Your task to perform on an android device: What's the weather going to be this weekend? Image 0: 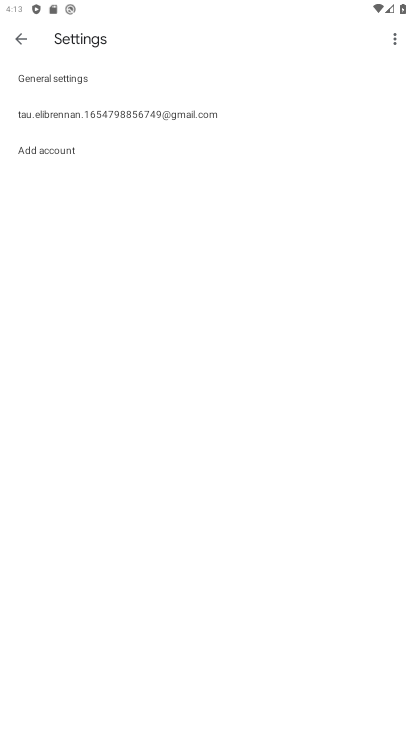
Step 0: press home button
Your task to perform on an android device: What's the weather going to be this weekend? Image 1: 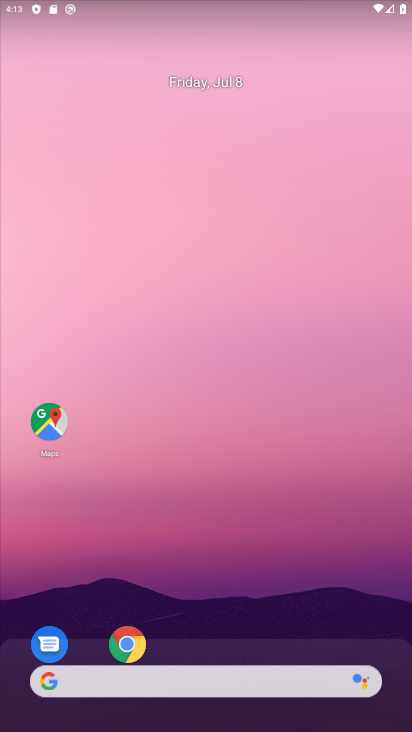
Step 1: click (187, 695)
Your task to perform on an android device: What's the weather going to be this weekend? Image 2: 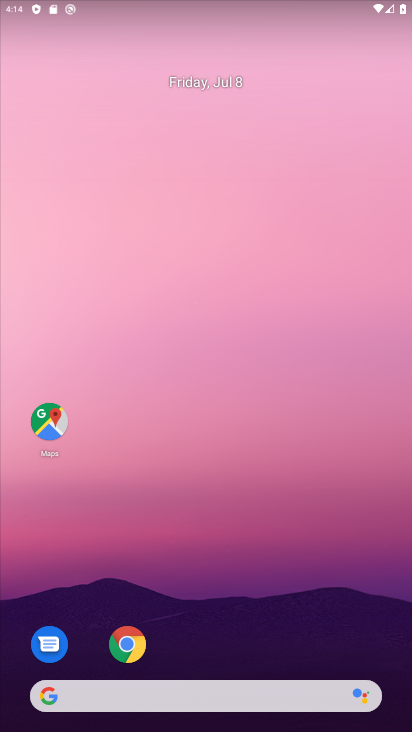
Step 2: type "What's the weather going to be this weekend?"
Your task to perform on an android device: What's the weather going to be this weekend? Image 3: 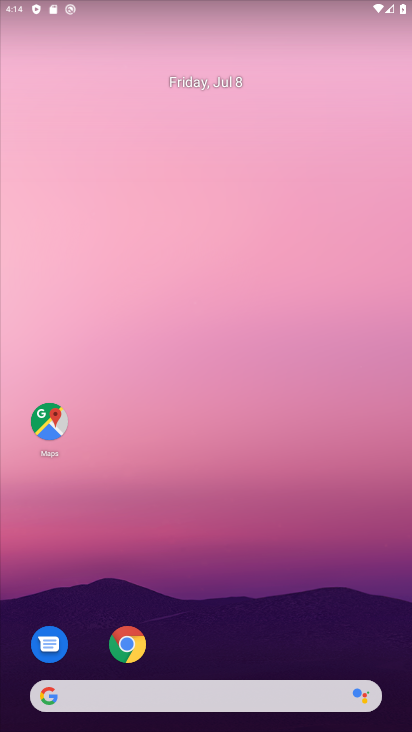
Step 3: click (163, 691)
Your task to perform on an android device: What's the weather going to be this weekend? Image 4: 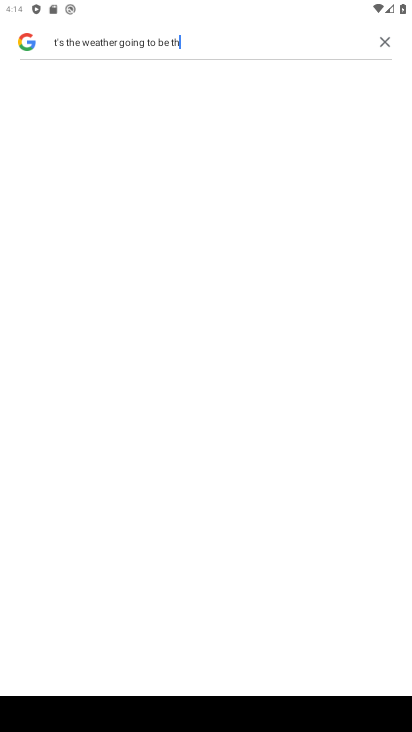
Step 4: click (386, 41)
Your task to perform on an android device: What's the weather going to be this weekend? Image 5: 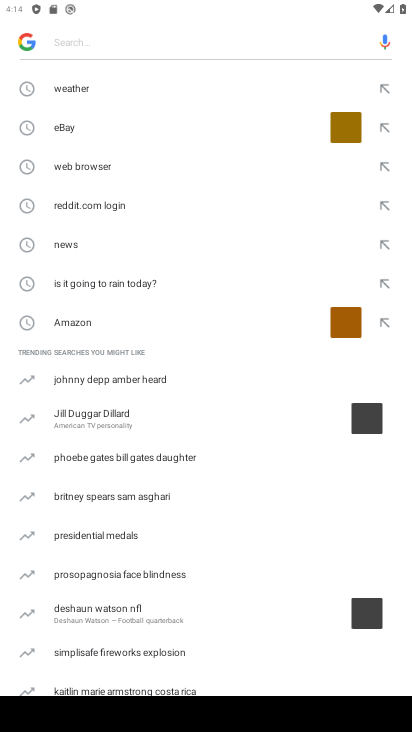
Step 5: type "What's the weather going to be this weekend?"
Your task to perform on an android device: What's the weather going to be this weekend? Image 6: 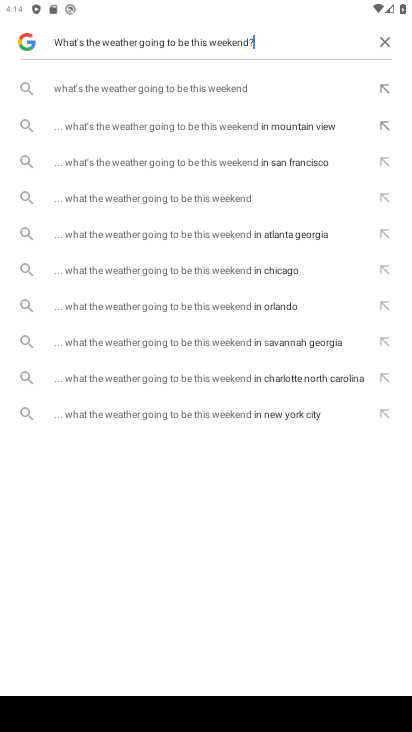
Step 6: click (153, 83)
Your task to perform on an android device: What's the weather going to be this weekend? Image 7: 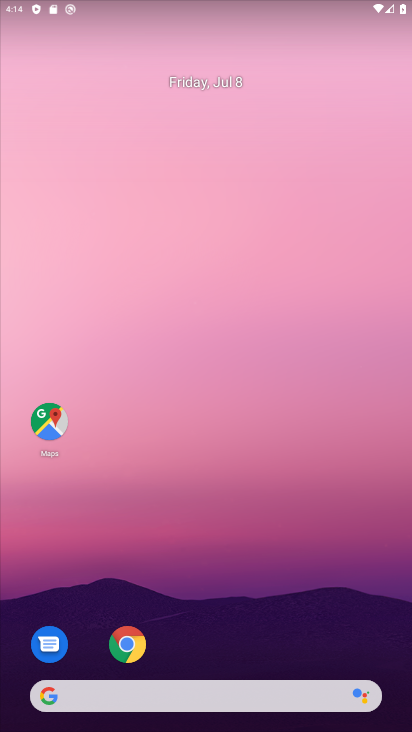
Step 7: task complete